Your task to perform on an android device: Go to accessibility settings Image 0: 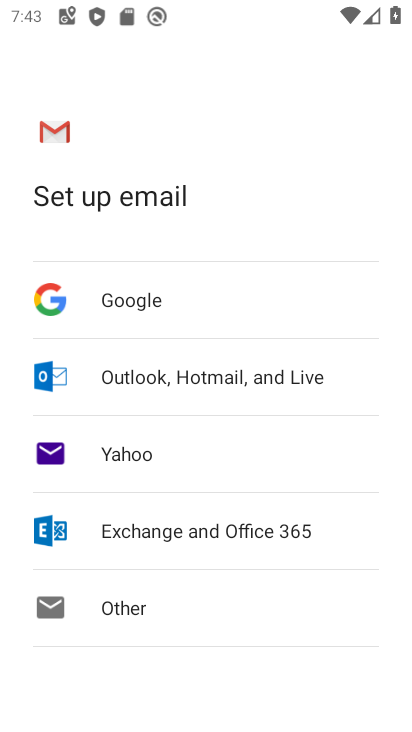
Step 0: press home button
Your task to perform on an android device: Go to accessibility settings Image 1: 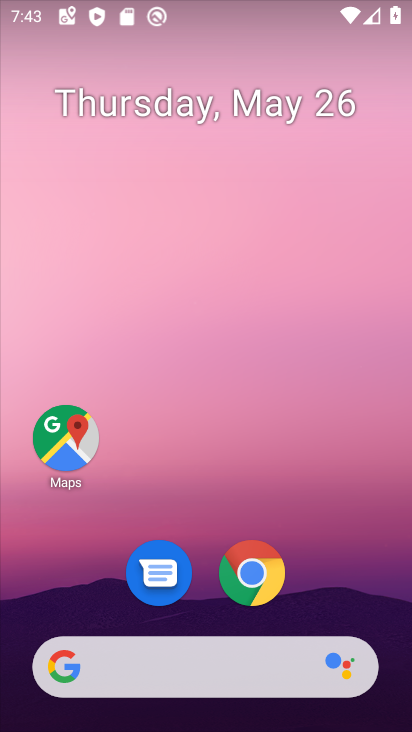
Step 1: drag from (369, 599) to (206, 159)
Your task to perform on an android device: Go to accessibility settings Image 2: 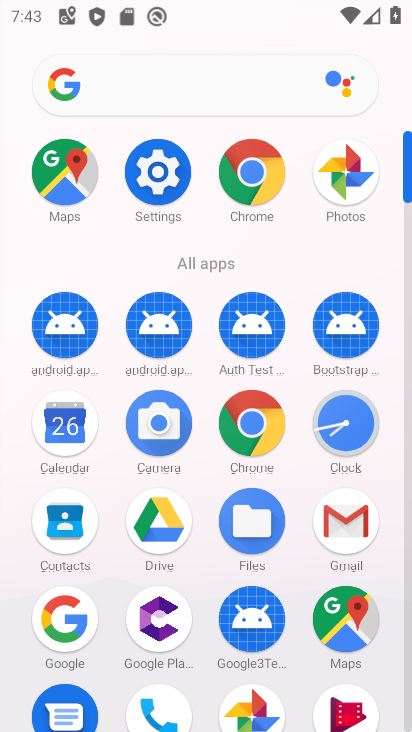
Step 2: click (152, 170)
Your task to perform on an android device: Go to accessibility settings Image 3: 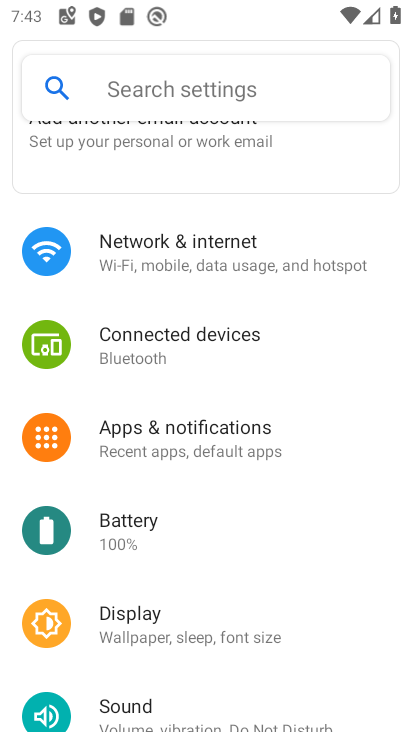
Step 3: drag from (248, 540) to (290, 134)
Your task to perform on an android device: Go to accessibility settings Image 4: 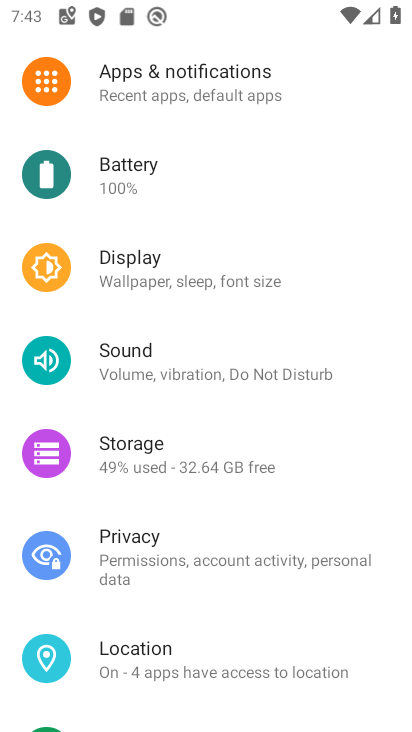
Step 4: drag from (289, 599) to (299, 261)
Your task to perform on an android device: Go to accessibility settings Image 5: 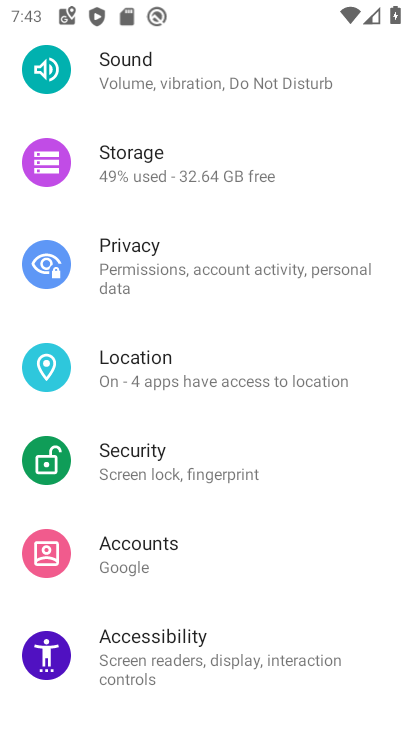
Step 5: click (159, 679)
Your task to perform on an android device: Go to accessibility settings Image 6: 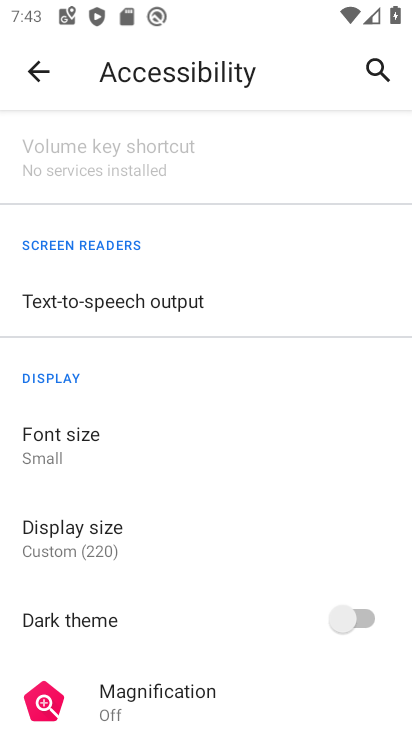
Step 6: task complete